Your task to perform on an android device: Go to Google Image 0: 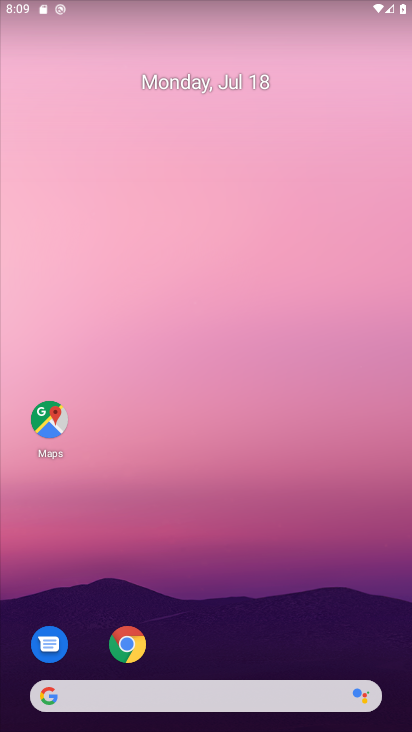
Step 0: click (149, 689)
Your task to perform on an android device: Go to Google Image 1: 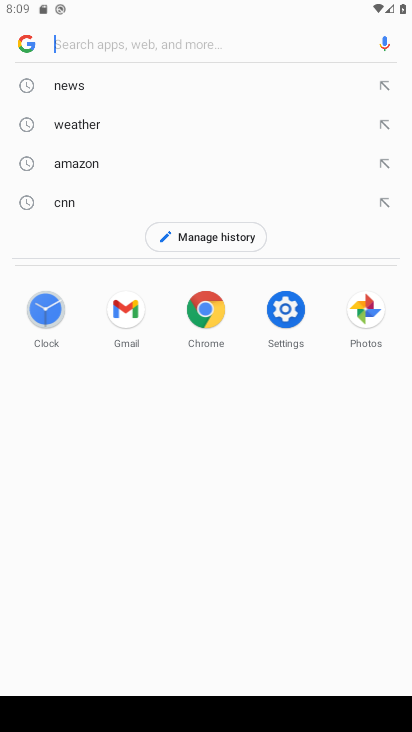
Step 1: type "google.com"
Your task to perform on an android device: Go to Google Image 2: 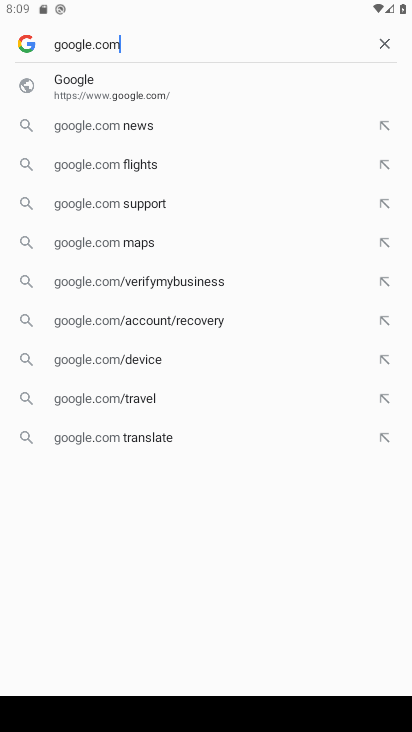
Step 2: click (98, 70)
Your task to perform on an android device: Go to Google Image 3: 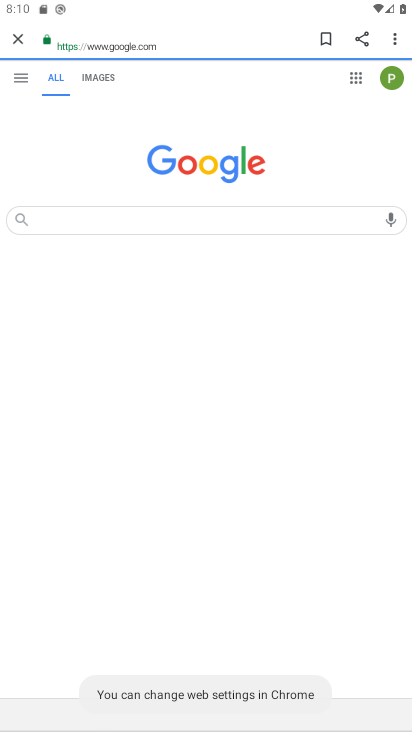
Step 3: task complete